Your task to perform on an android device: Go to settings Image 0: 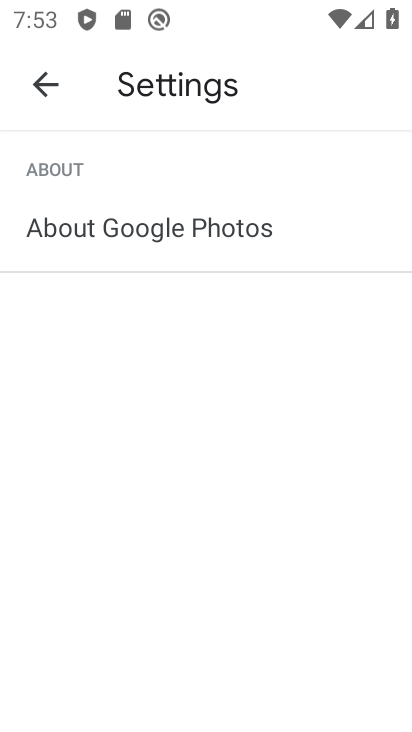
Step 0: press home button
Your task to perform on an android device: Go to settings Image 1: 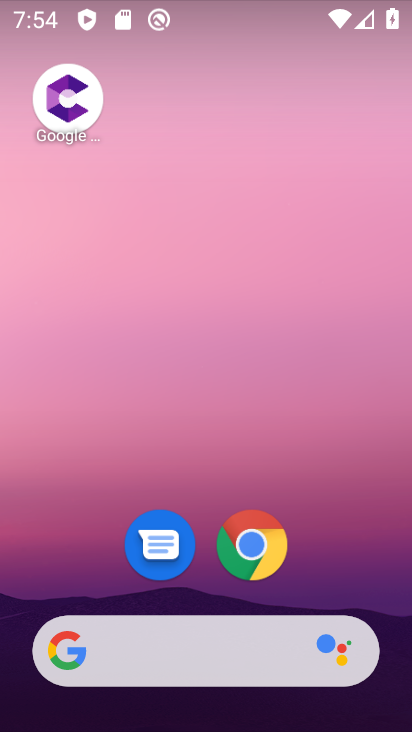
Step 1: drag from (323, 572) to (304, 70)
Your task to perform on an android device: Go to settings Image 2: 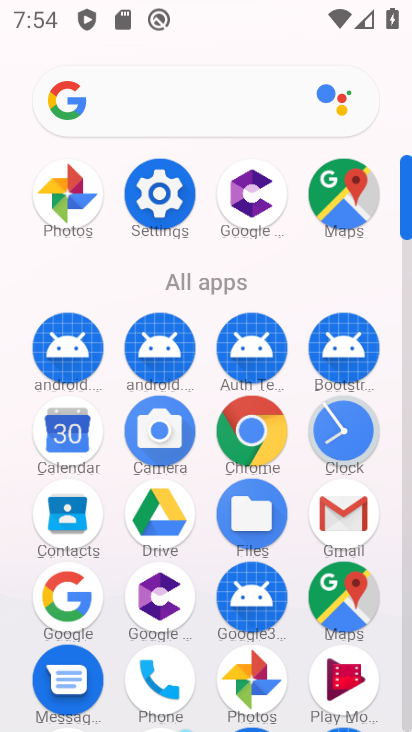
Step 2: click (159, 177)
Your task to perform on an android device: Go to settings Image 3: 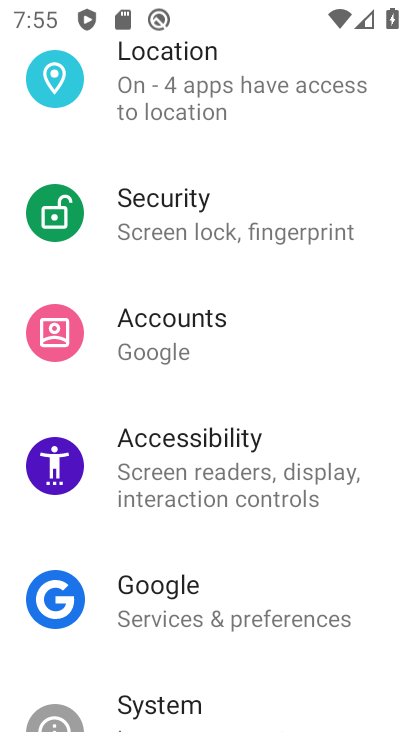
Step 3: task complete